Your task to perform on an android device: toggle airplane mode Image 0: 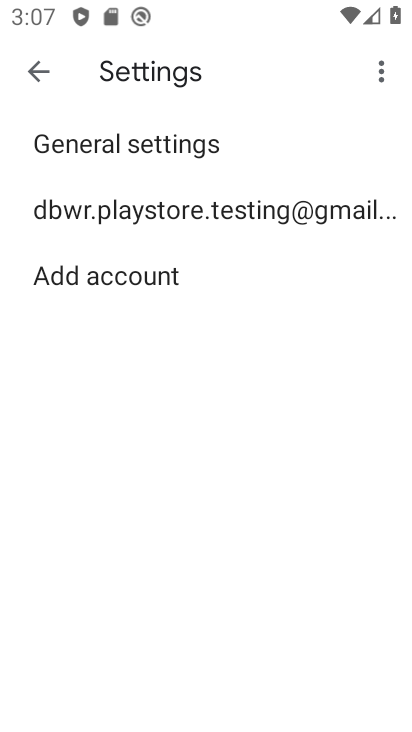
Step 0: press home button
Your task to perform on an android device: toggle airplane mode Image 1: 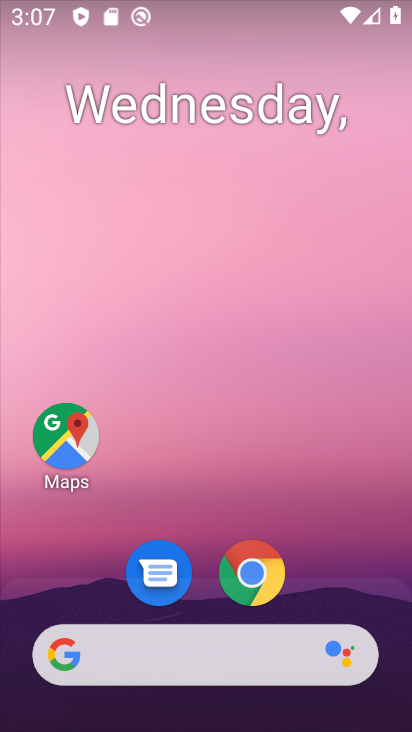
Step 1: drag from (186, 321) to (186, 258)
Your task to perform on an android device: toggle airplane mode Image 2: 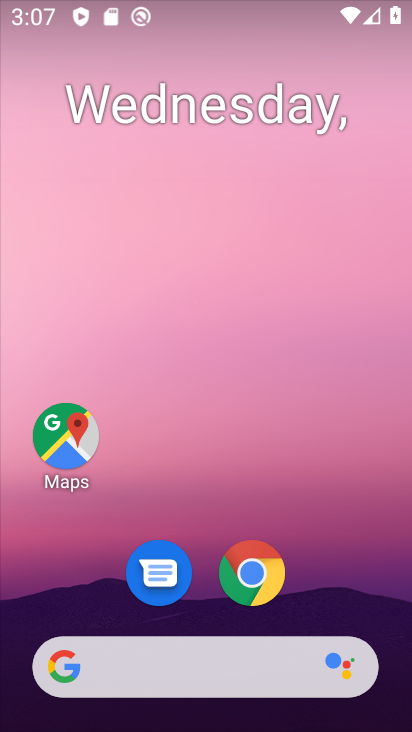
Step 2: drag from (224, 631) to (224, 188)
Your task to perform on an android device: toggle airplane mode Image 3: 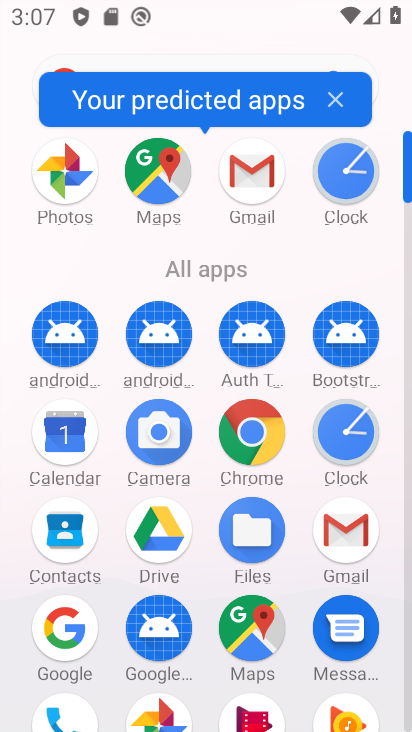
Step 3: drag from (216, 682) to (210, 200)
Your task to perform on an android device: toggle airplane mode Image 4: 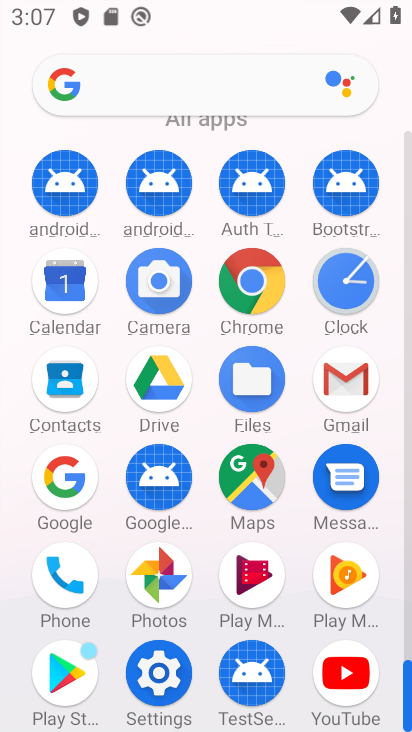
Step 4: click (171, 648)
Your task to perform on an android device: toggle airplane mode Image 5: 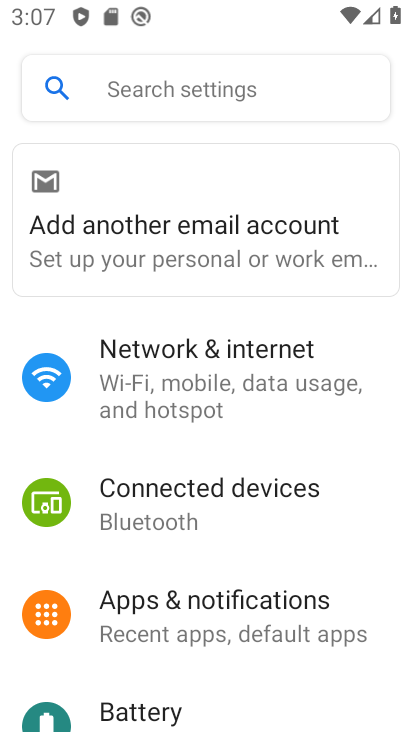
Step 5: click (200, 380)
Your task to perform on an android device: toggle airplane mode Image 6: 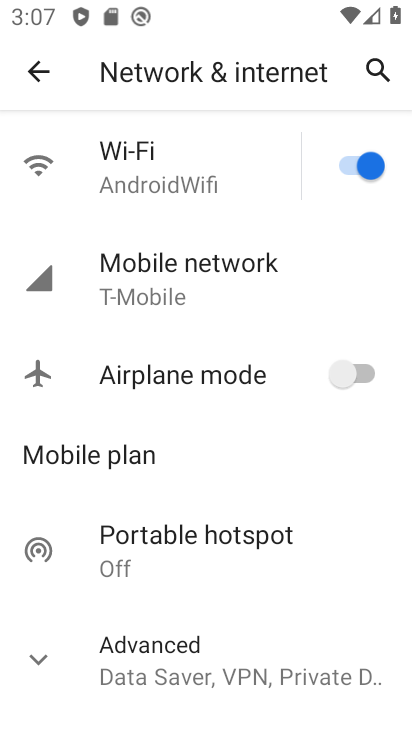
Step 6: click (352, 374)
Your task to perform on an android device: toggle airplane mode Image 7: 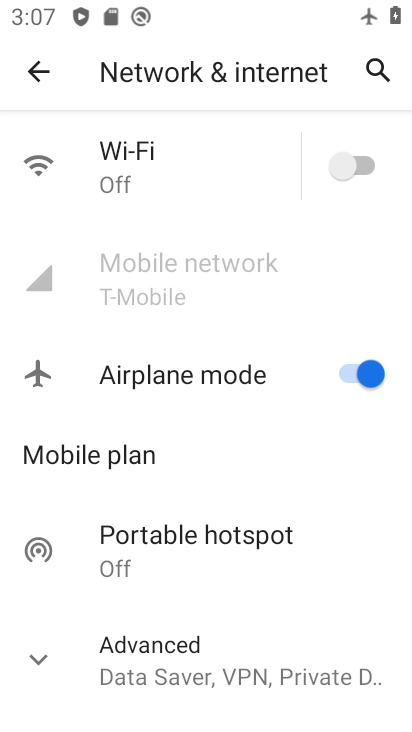
Step 7: task complete